Your task to perform on an android device: Find coffee shops on Maps Image 0: 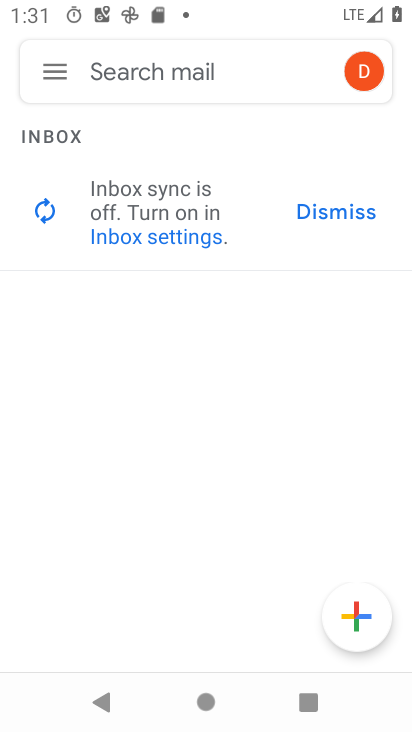
Step 0: press home button
Your task to perform on an android device: Find coffee shops on Maps Image 1: 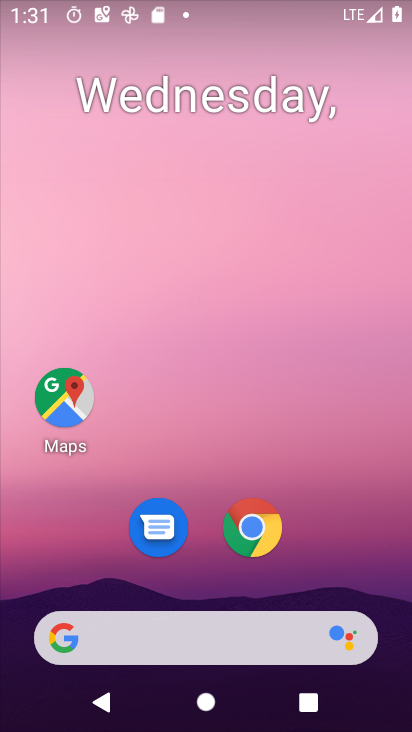
Step 1: drag from (266, 641) to (283, 25)
Your task to perform on an android device: Find coffee shops on Maps Image 2: 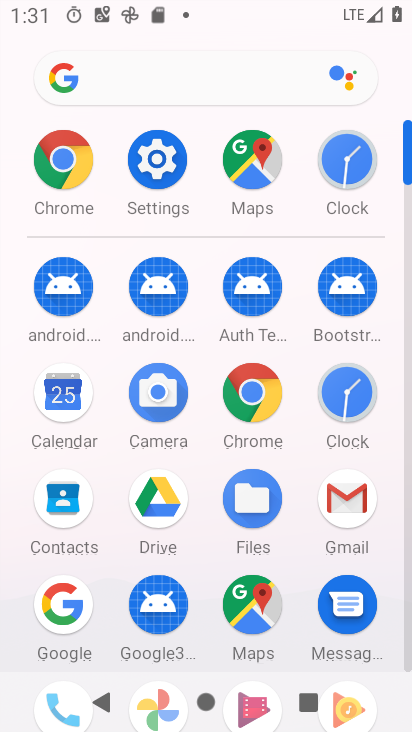
Step 2: click (239, 612)
Your task to perform on an android device: Find coffee shops on Maps Image 3: 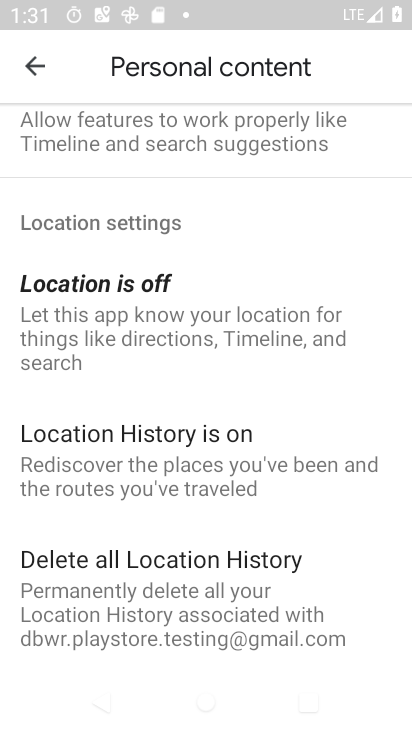
Step 3: press back button
Your task to perform on an android device: Find coffee shops on Maps Image 4: 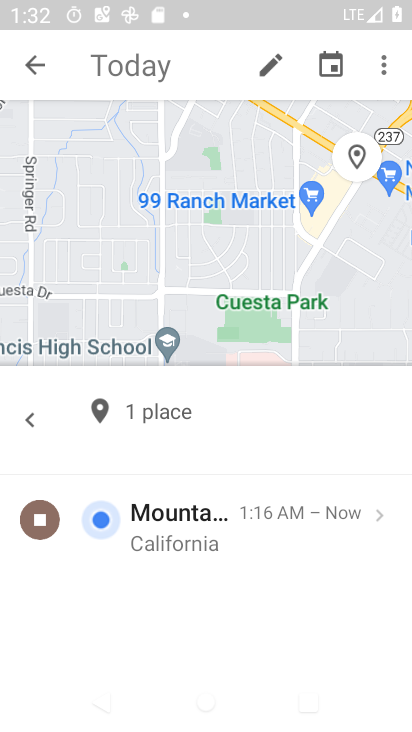
Step 4: press back button
Your task to perform on an android device: Find coffee shops on Maps Image 5: 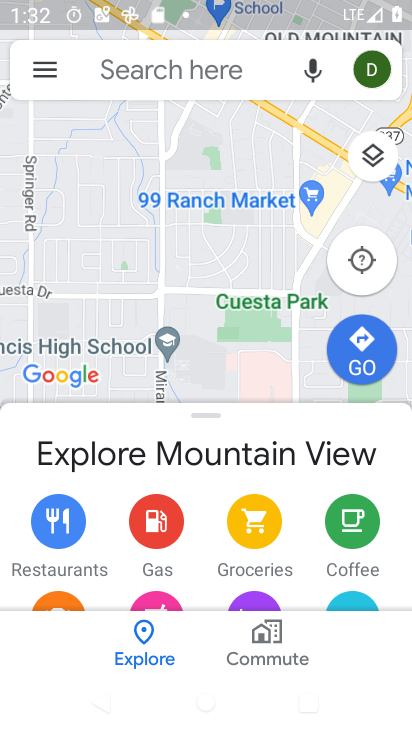
Step 5: click (203, 76)
Your task to perform on an android device: Find coffee shops on Maps Image 6: 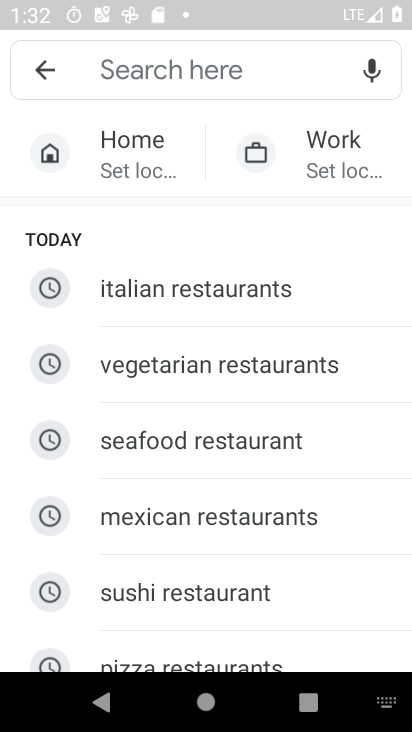
Step 6: type "coffee shops"
Your task to perform on an android device: Find coffee shops on Maps Image 7: 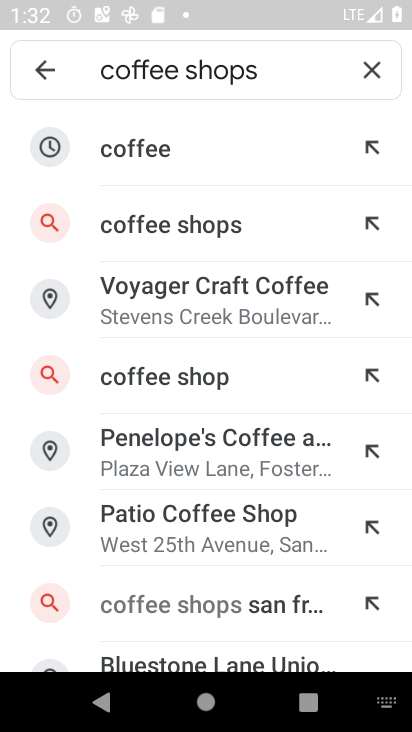
Step 7: click (225, 220)
Your task to perform on an android device: Find coffee shops on Maps Image 8: 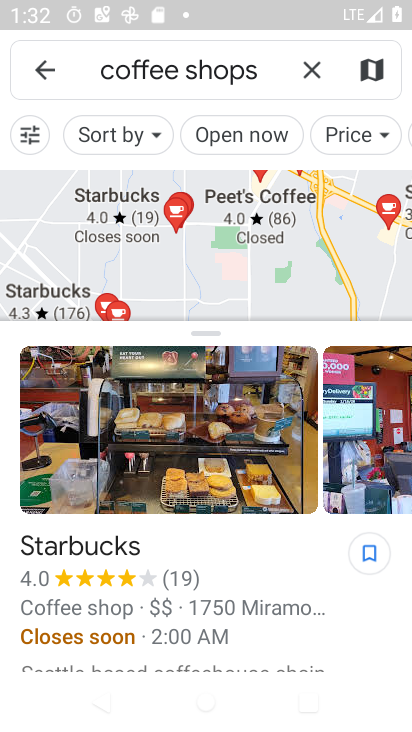
Step 8: task complete